Your task to perform on an android device: Search for pizza restaurants on Maps Image 0: 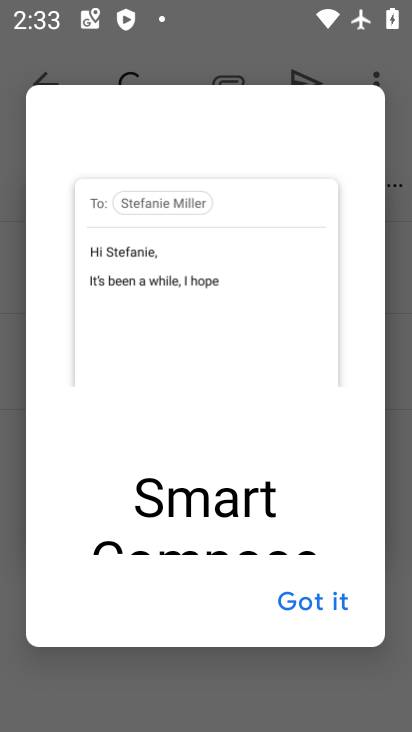
Step 0: press home button
Your task to perform on an android device: Search for pizza restaurants on Maps Image 1: 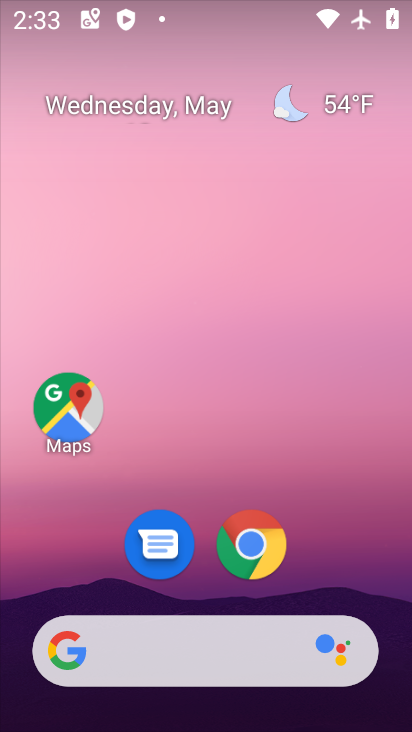
Step 1: drag from (329, 550) to (314, 165)
Your task to perform on an android device: Search for pizza restaurants on Maps Image 2: 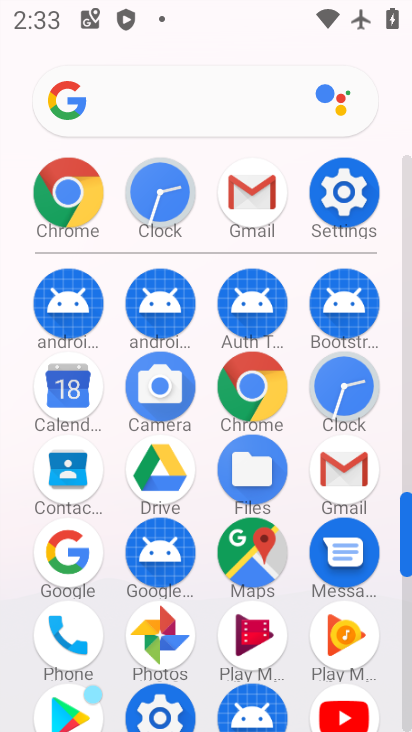
Step 2: click (246, 547)
Your task to perform on an android device: Search for pizza restaurants on Maps Image 3: 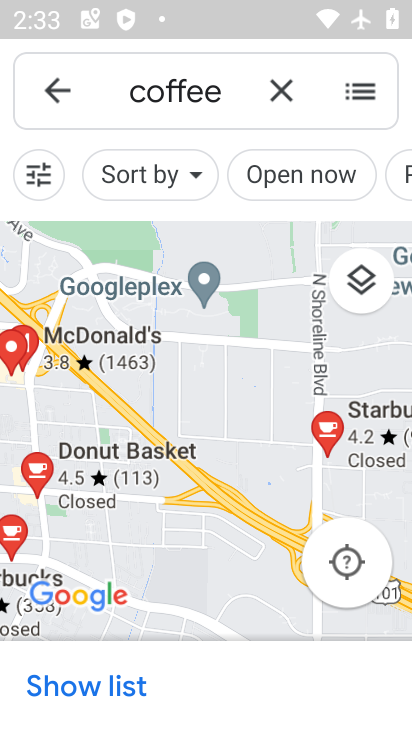
Step 3: click (261, 97)
Your task to perform on an android device: Search for pizza restaurants on Maps Image 4: 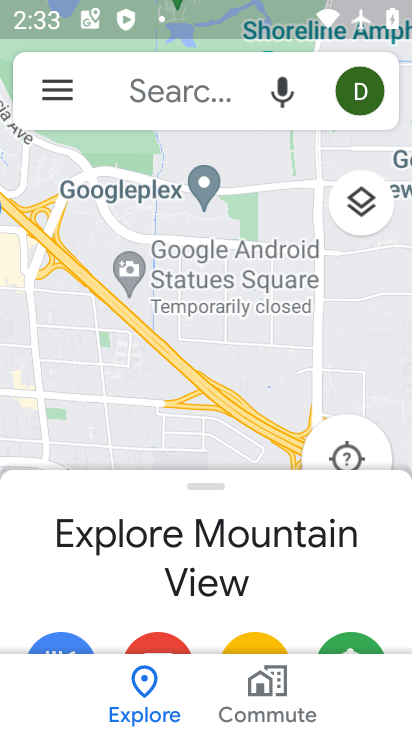
Step 4: click (201, 97)
Your task to perform on an android device: Search for pizza restaurants on Maps Image 5: 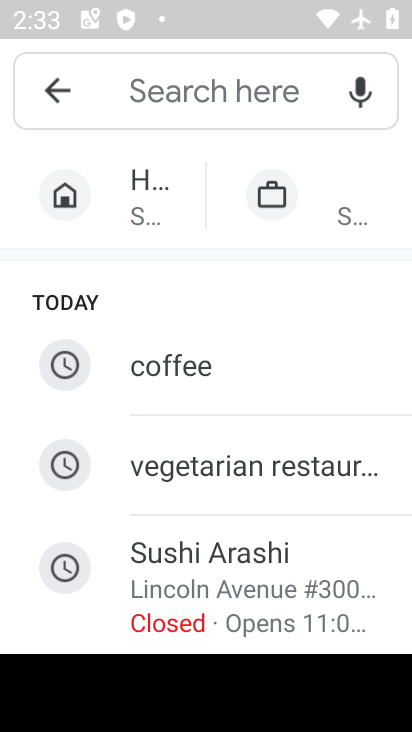
Step 5: type "pizza"
Your task to perform on an android device: Search for pizza restaurants on Maps Image 6: 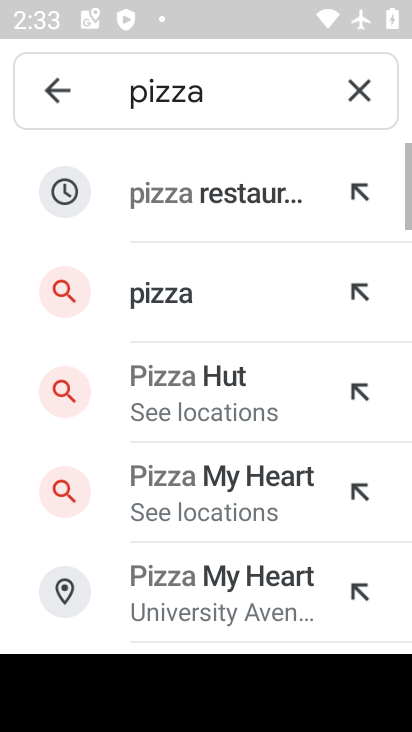
Step 6: click (220, 186)
Your task to perform on an android device: Search for pizza restaurants on Maps Image 7: 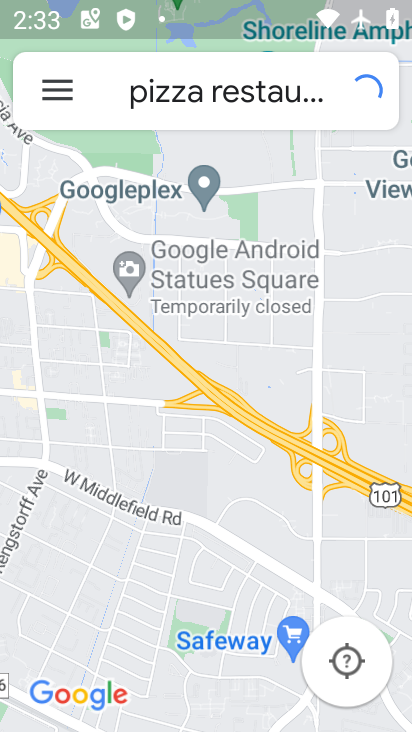
Step 7: task complete